Your task to perform on an android device: Search for the best selling TV on Best Buy. Image 0: 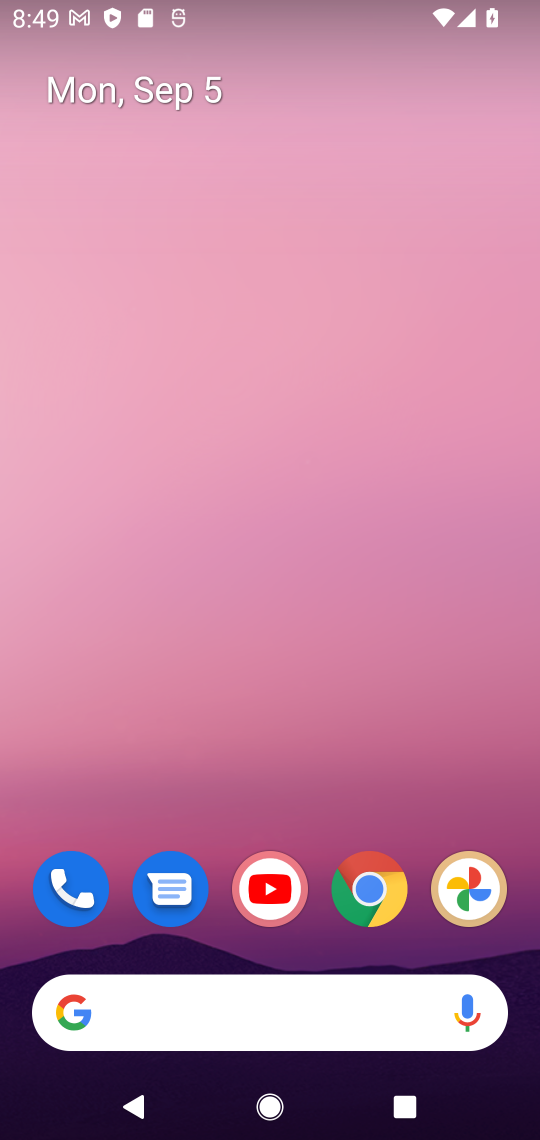
Step 0: click (226, 1009)
Your task to perform on an android device: Search for the best selling TV on Best Buy. Image 1: 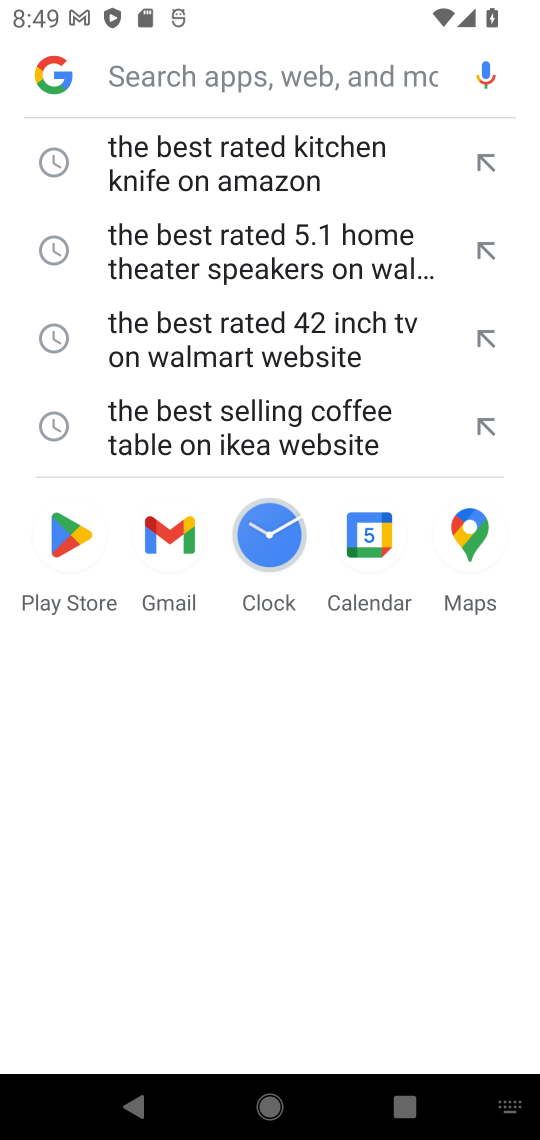
Step 1: type " the best selling TV on Best Buy"
Your task to perform on an android device: Search for the best selling TV on Best Buy. Image 2: 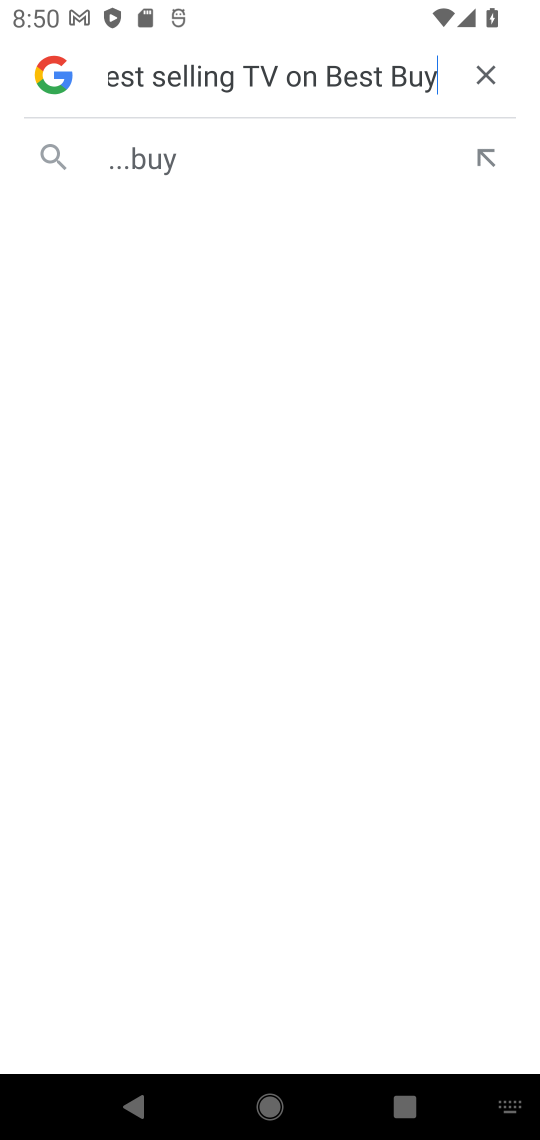
Step 2: click (155, 145)
Your task to perform on an android device: Search for the best selling TV on Best Buy. Image 3: 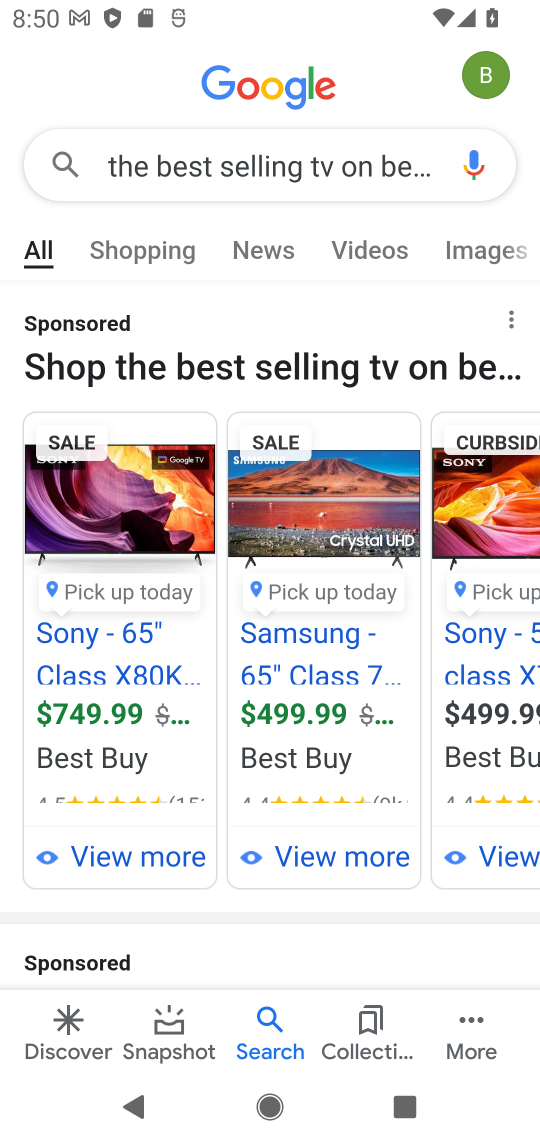
Step 3: task complete